Your task to perform on an android device: change timer sound Image 0: 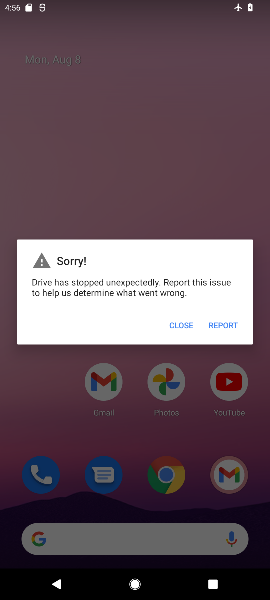
Step 0: press home button
Your task to perform on an android device: change timer sound Image 1: 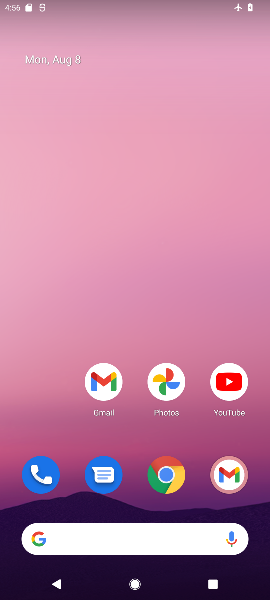
Step 1: drag from (49, 418) to (62, 168)
Your task to perform on an android device: change timer sound Image 2: 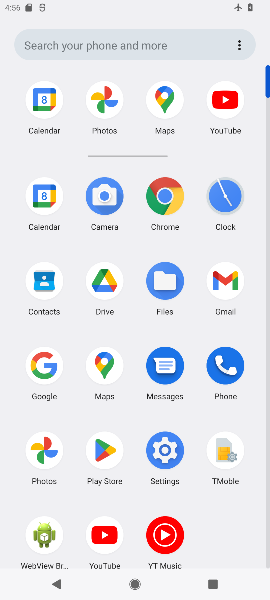
Step 2: click (227, 199)
Your task to perform on an android device: change timer sound Image 3: 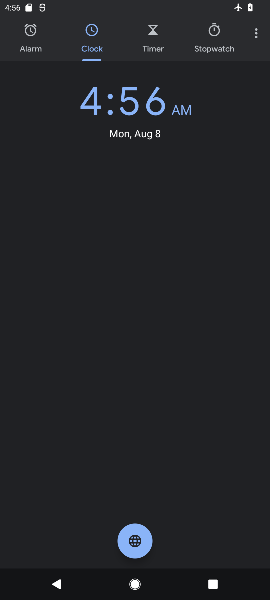
Step 3: click (252, 35)
Your task to perform on an android device: change timer sound Image 4: 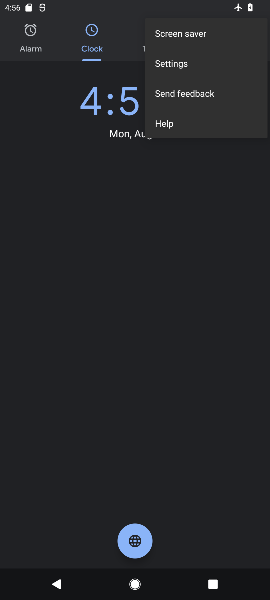
Step 4: click (181, 66)
Your task to perform on an android device: change timer sound Image 5: 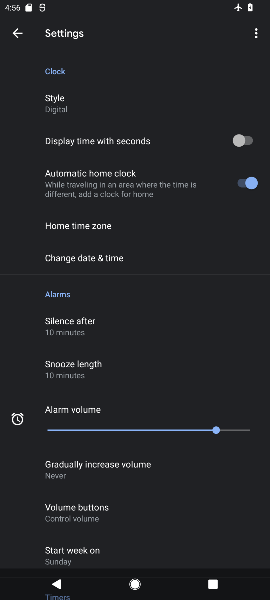
Step 5: drag from (223, 310) to (219, 223)
Your task to perform on an android device: change timer sound Image 6: 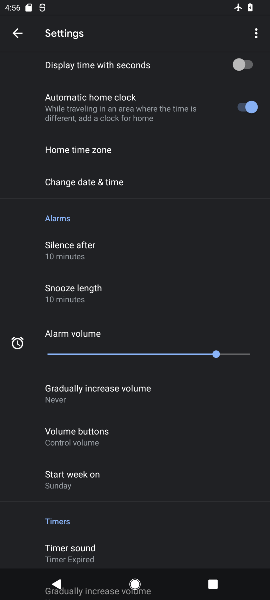
Step 6: drag from (204, 284) to (205, 230)
Your task to perform on an android device: change timer sound Image 7: 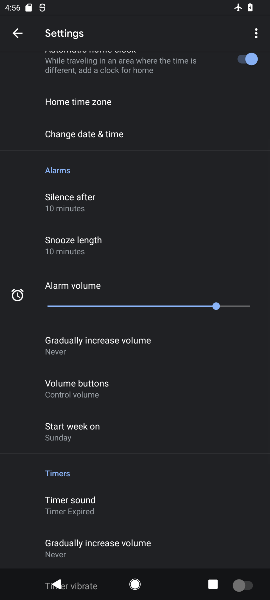
Step 7: drag from (182, 377) to (194, 299)
Your task to perform on an android device: change timer sound Image 8: 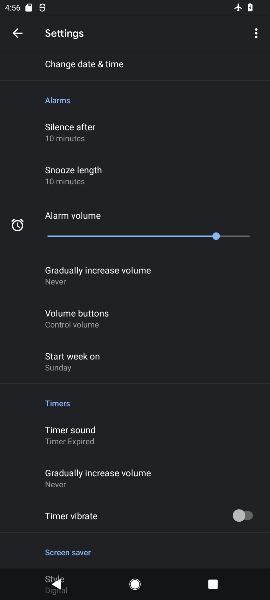
Step 8: drag from (187, 418) to (195, 324)
Your task to perform on an android device: change timer sound Image 9: 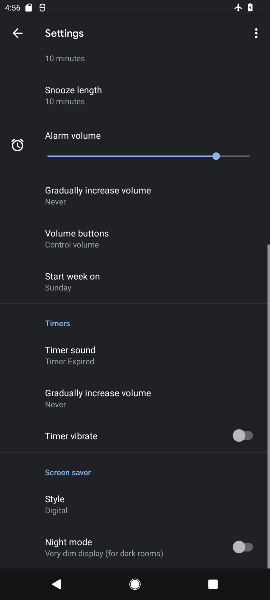
Step 9: click (194, 313)
Your task to perform on an android device: change timer sound Image 10: 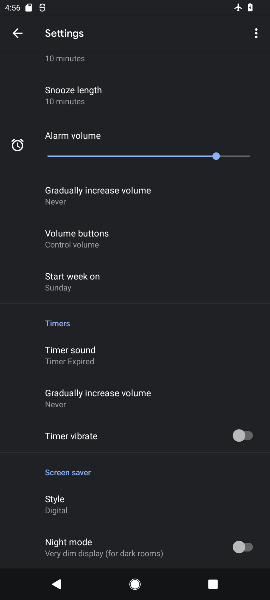
Step 10: click (105, 345)
Your task to perform on an android device: change timer sound Image 11: 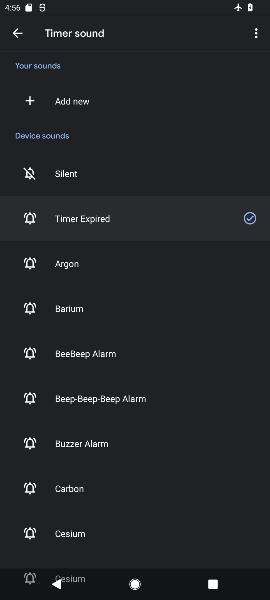
Step 11: click (104, 450)
Your task to perform on an android device: change timer sound Image 12: 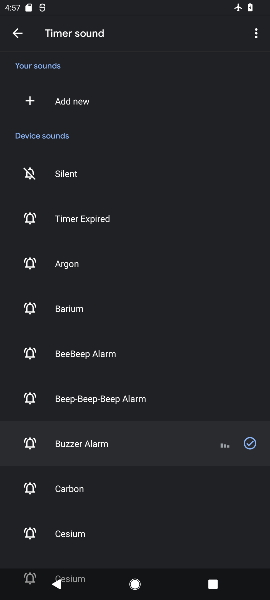
Step 12: task complete